Your task to perform on an android device: Is it going to rain tomorrow? Image 0: 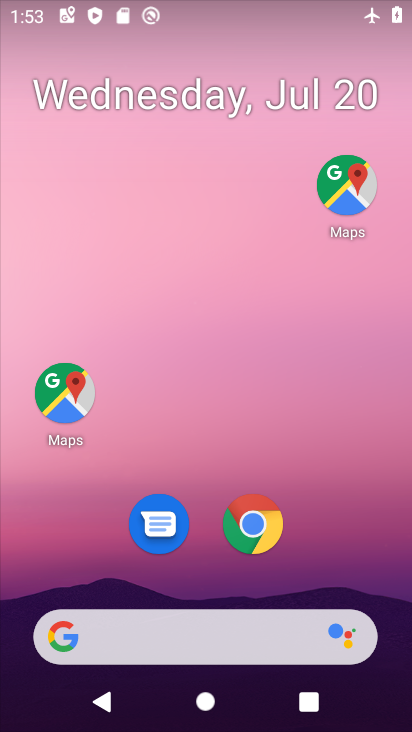
Step 0: click (197, 641)
Your task to perform on an android device: Is it going to rain tomorrow? Image 1: 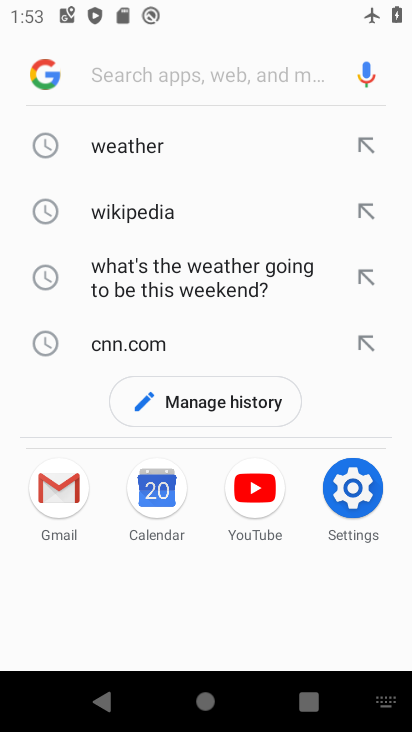
Step 1: click (146, 140)
Your task to perform on an android device: Is it going to rain tomorrow? Image 2: 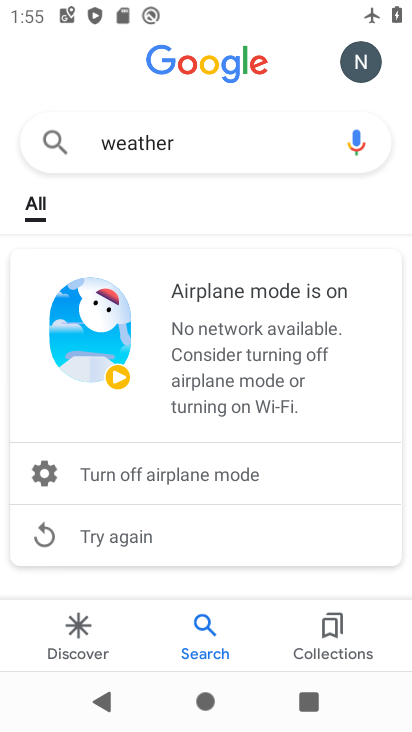
Step 2: task complete